Your task to perform on an android device: set the timer Image 0: 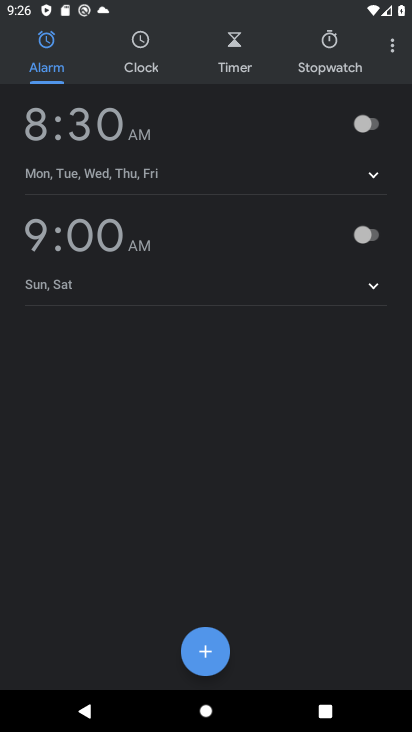
Step 0: click (246, 47)
Your task to perform on an android device: set the timer Image 1: 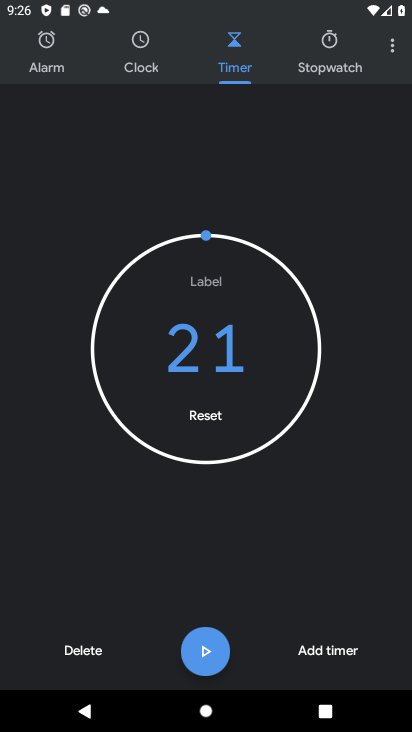
Step 1: click (213, 651)
Your task to perform on an android device: set the timer Image 2: 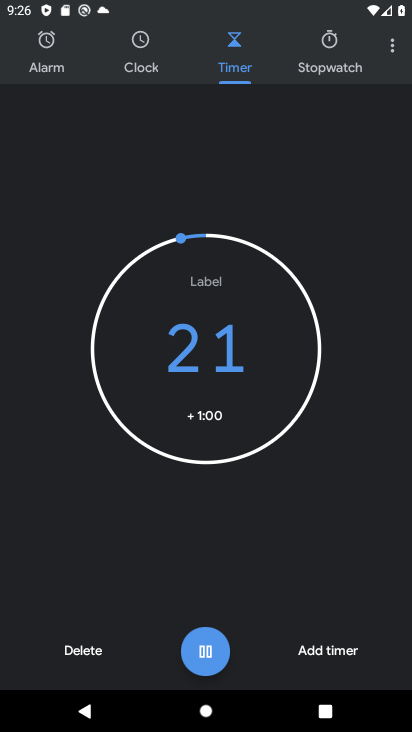
Step 2: task complete